Your task to perform on an android device: turn off picture-in-picture Image 0: 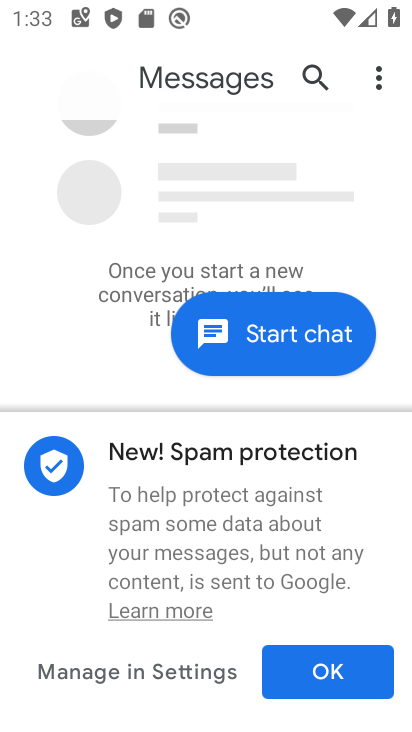
Step 0: press home button
Your task to perform on an android device: turn off picture-in-picture Image 1: 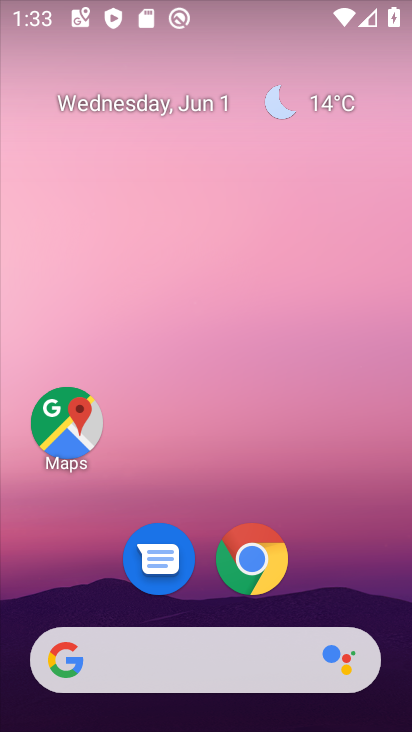
Step 1: click (258, 565)
Your task to perform on an android device: turn off picture-in-picture Image 2: 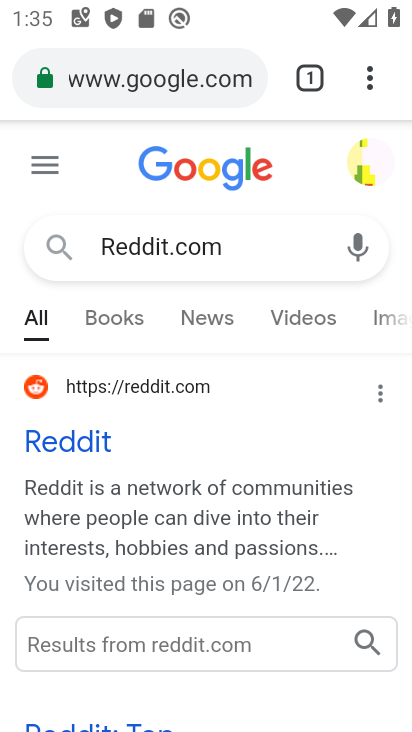
Step 2: press home button
Your task to perform on an android device: turn off picture-in-picture Image 3: 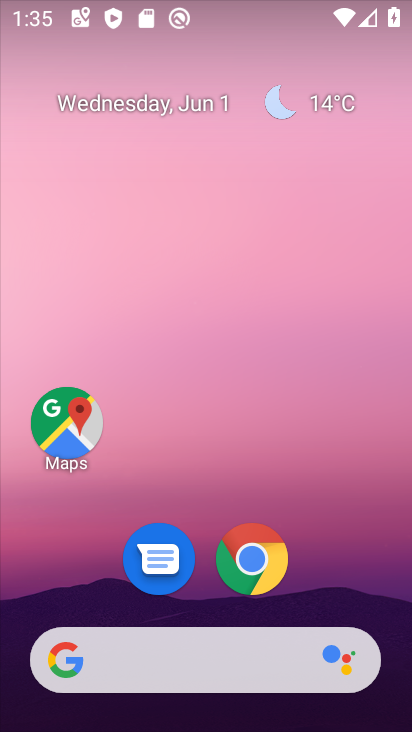
Step 3: click (258, 562)
Your task to perform on an android device: turn off picture-in-picture Image 4: 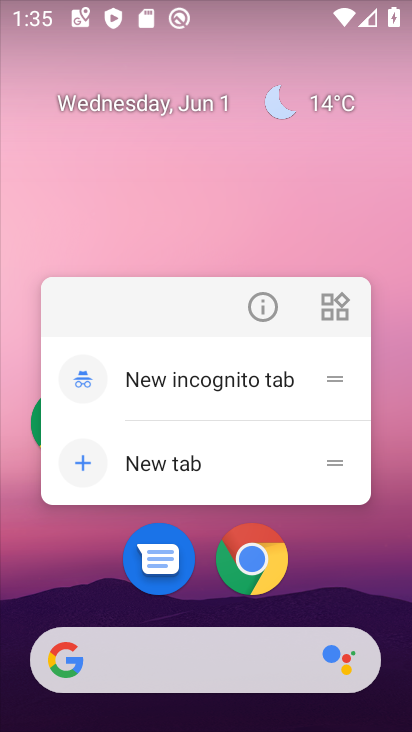
Step 4: click (261, 304)
Your task to perform on an android device: turn off picture-in-picture Image 5: 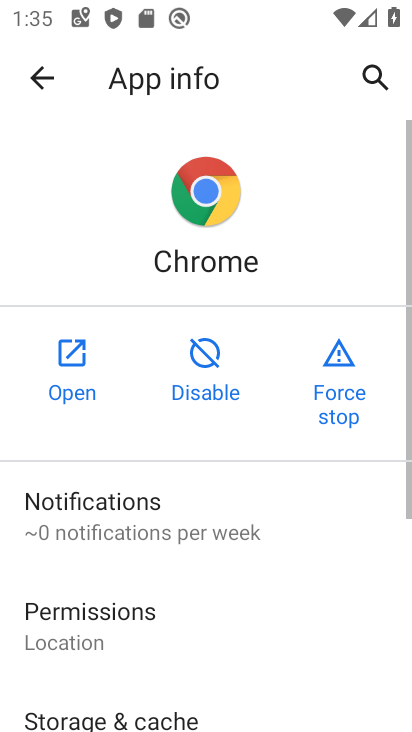
Step 5: drag from (242, 703) to (228, 243)
Your task to perform on an android device: turn off picture-in-picture Image 6: 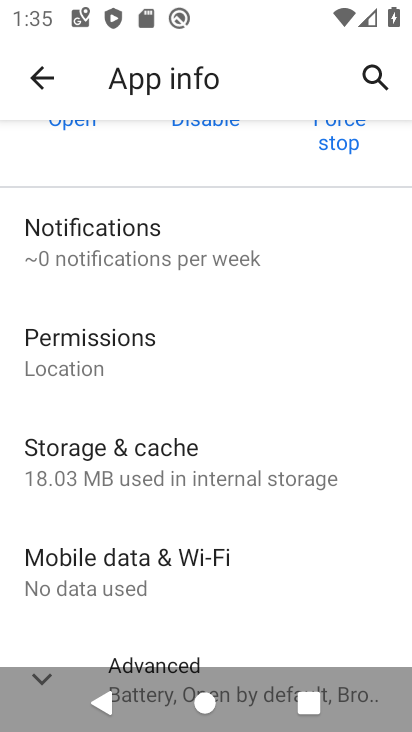
Step 6: drag from (174, 631) to (167, 406)
Your task to perform on an android device: turn off picture-in-picture Image 7: 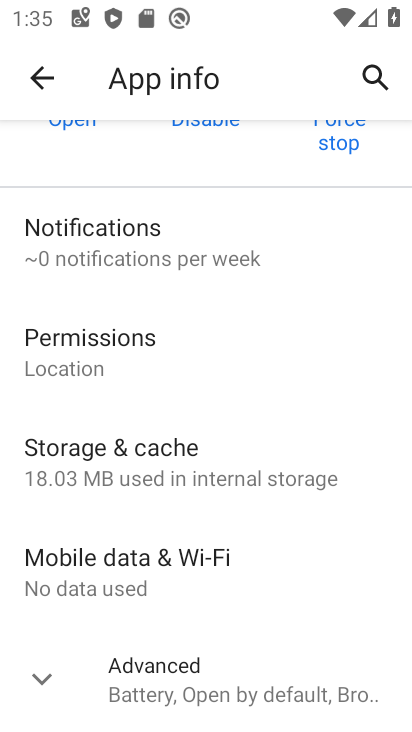
Step 7: click (60, 676)
Your task to perform on an android device: turn off picture-in-picture Image 8: 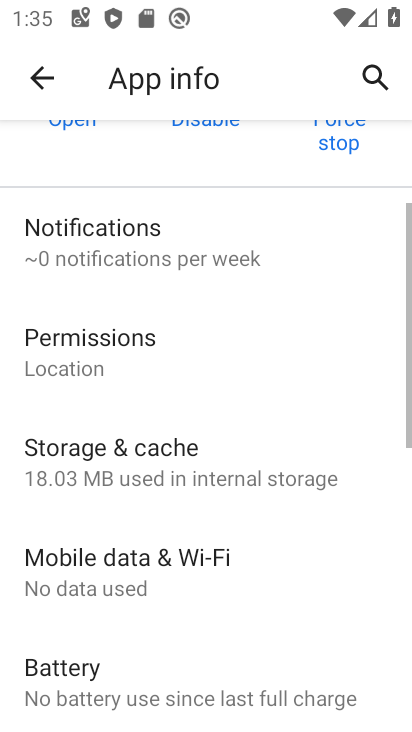
Step 8: drag from (285, 614) to (284, 105)
Your task to perform on an android device: turn off picture-in-picture Image 9: 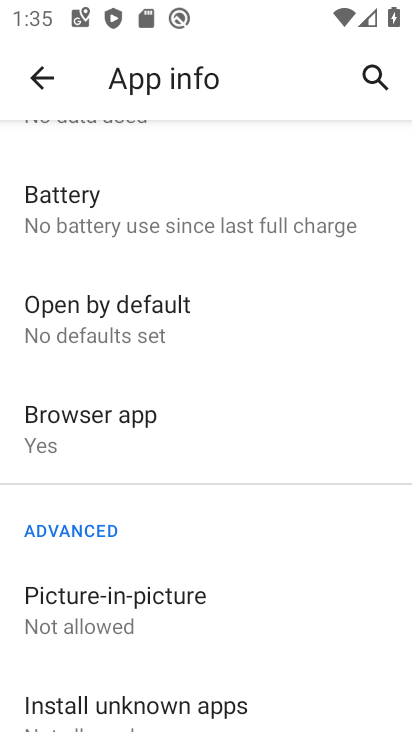
Step 9: click (91, 615)
Your task to perform on an android device: turn off picture-in-picture Image 10: 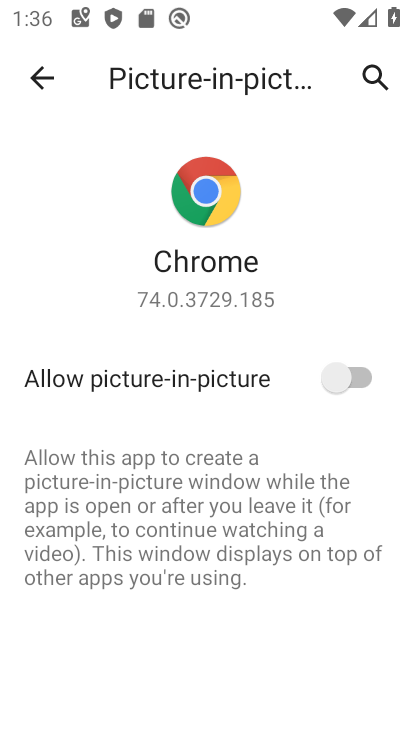
Step 10: task complete